Your task to perform on an android device: toggle improve location accuracy Image 0: 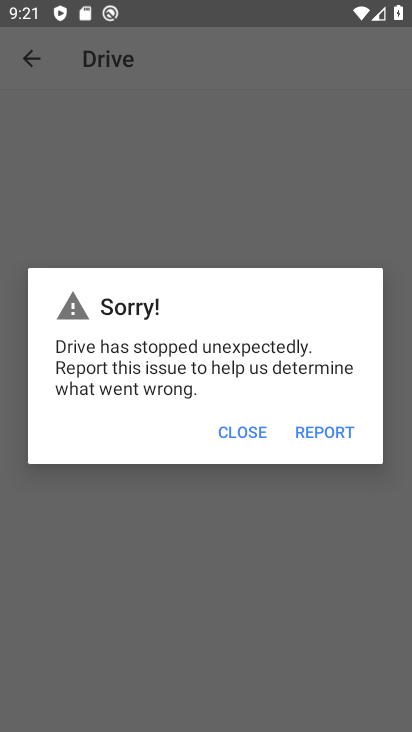
Step 0: drag from (190, 0) to (198, 55)
Your task to perform on an android device: toggle improve location accuracy Image 1: 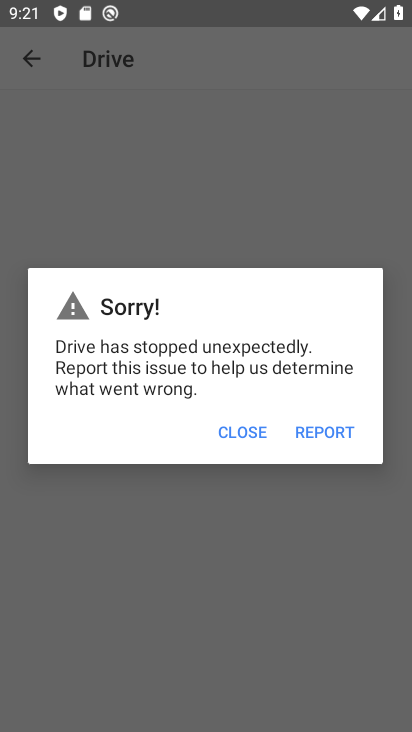
Step 1: press home button
Your task to perform on an android device: toggle improve location accuracy Image 2: 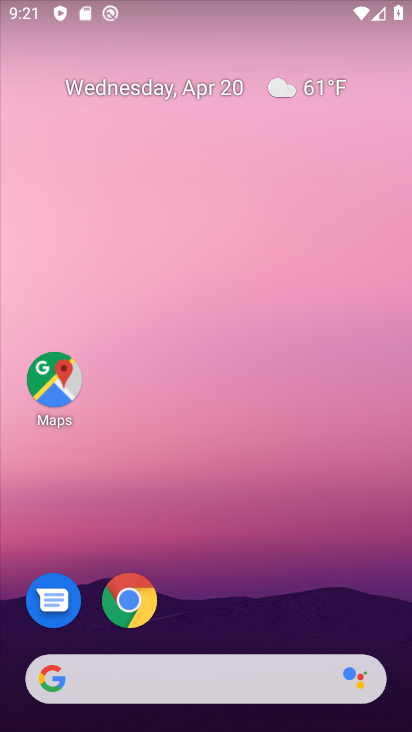
Step 2: drag from (307, 603) to (325, 5)
Your task to perform on an android device: toggle improve location accuracy Image 3: 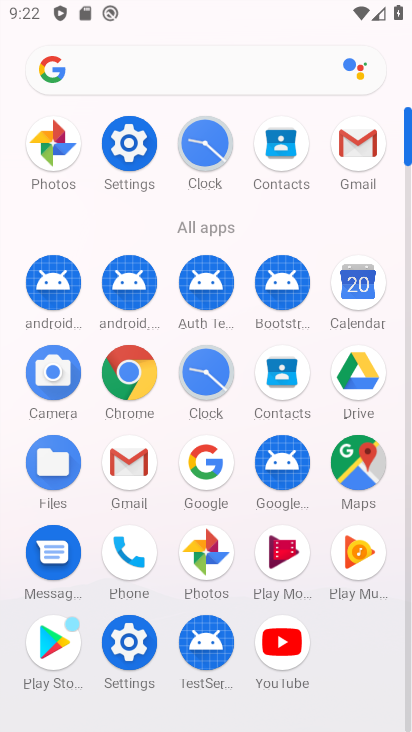
Step 3: click (127, 146)
Your task to perform on an android device: toggle improve location accuracy Image 4: 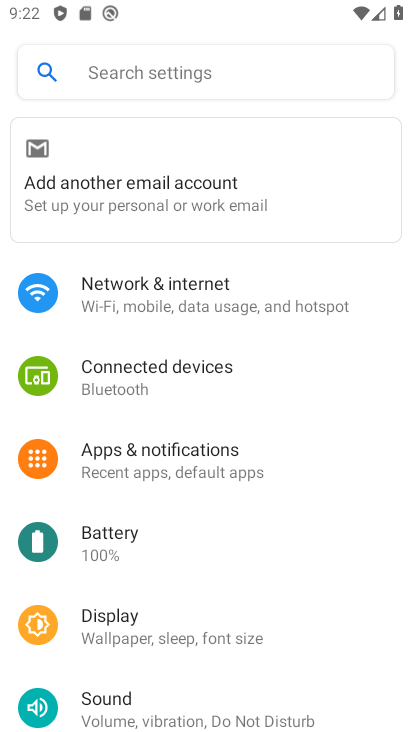
Step 4: drag from (342, 629) to (317, 232)
Your task to perform on an android device: toggle improve location accuracy Image 5: 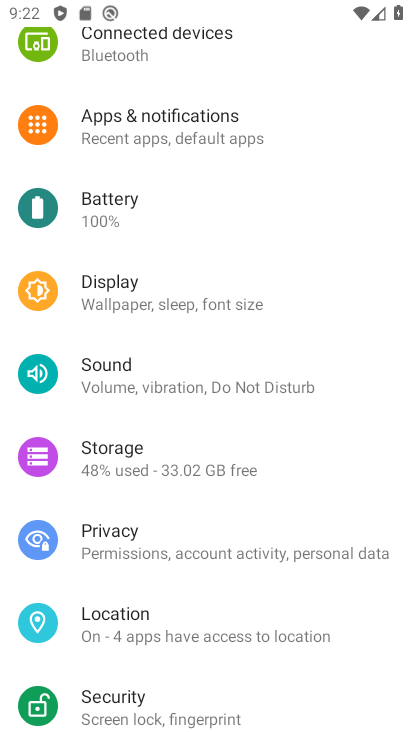
Step 5: click (138, 619)
Your task to perform on an android device: toggle improve location accuracy Image 6: 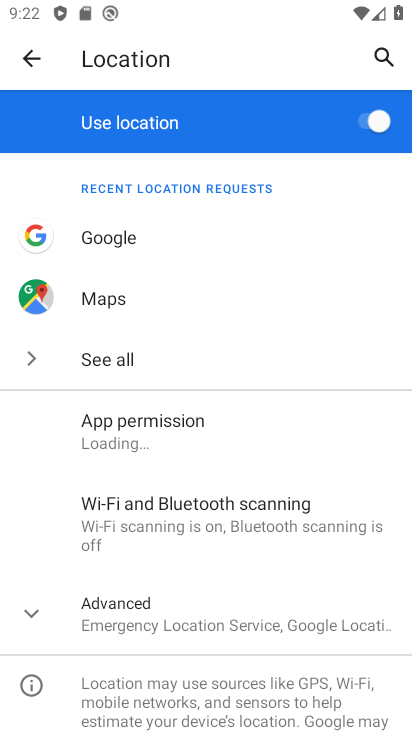
Step 6: click (27, 620)
Your task to perform on an android device: toggle improve location accuracy Image 7: 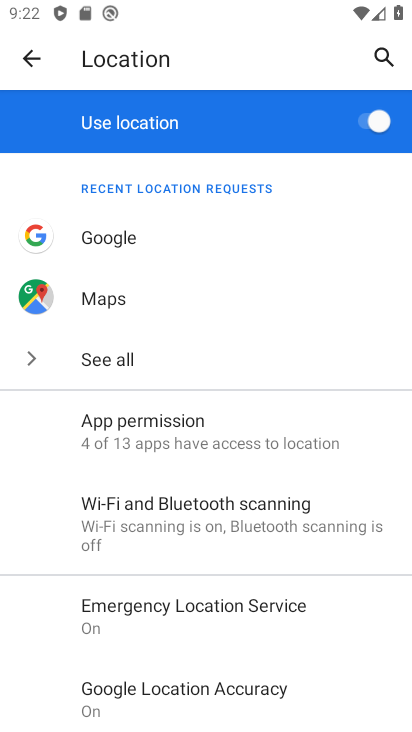
Step 7: click (176, 690)
Your task to perform on an android device: toggle improve location accuracy Image 8: 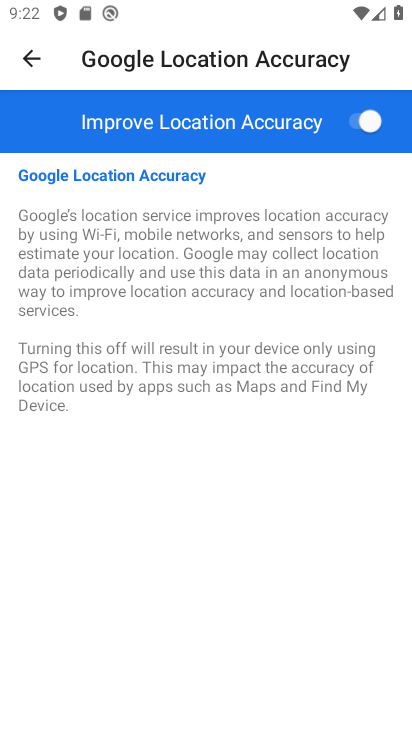
Step 8: click (367, 120)
Your task to perform on an android device: toggle improve location accuracy Image 9: 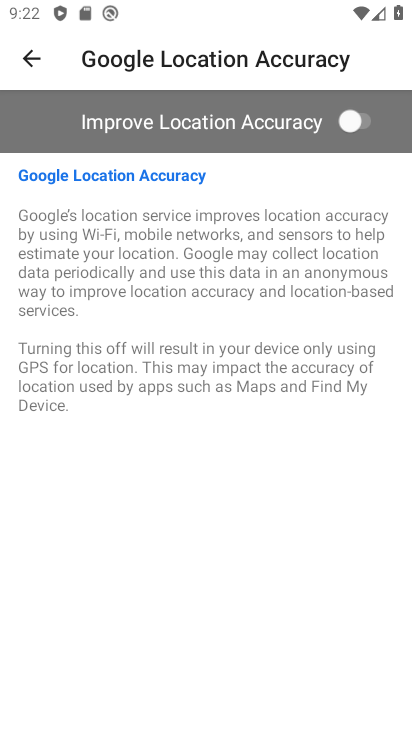
Step 9: task complete